Your task to perform on an android device: change alarm snooze length Image 0: 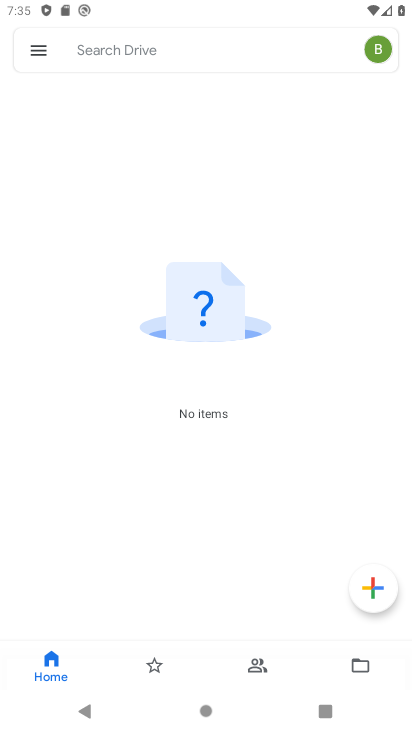
Step 0: press home button
Your task to perform on an android device: change alarm snooze length Image 1: 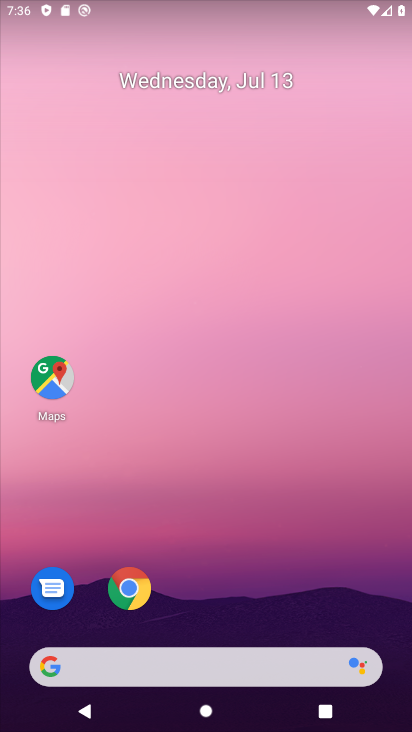
Step 1: drag from (245, 719) to (206, 16)
Your task to perform on an android device: change alarm snooze length Image 2: 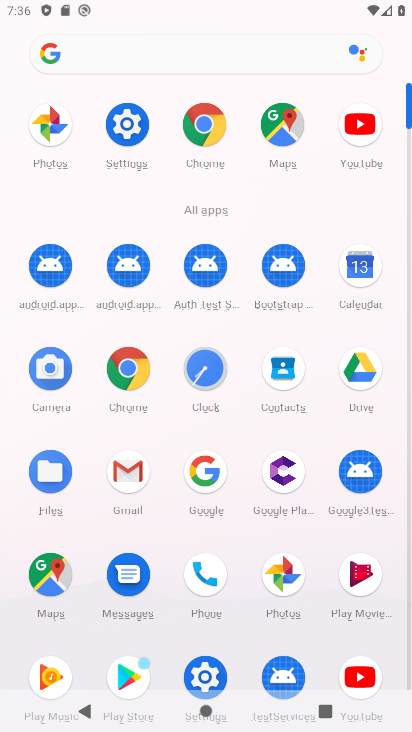
Step 2: click (208, 374)
Your task to perform on an android device: change alarm snooze length Image 3: 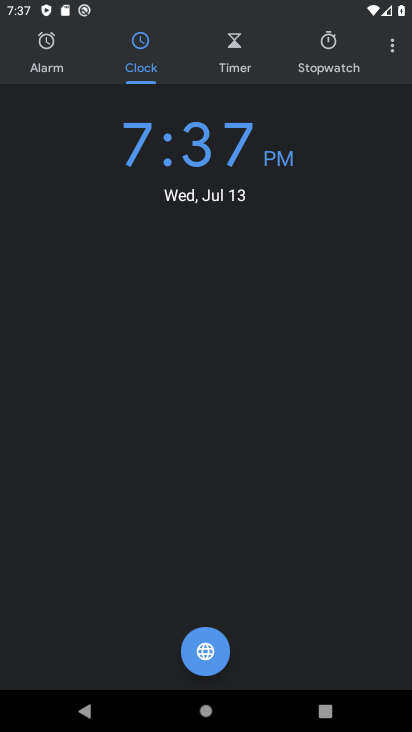
Step 3: click (393, 53)
Your task to perform on an android device: change alarm snooze length Image 4: 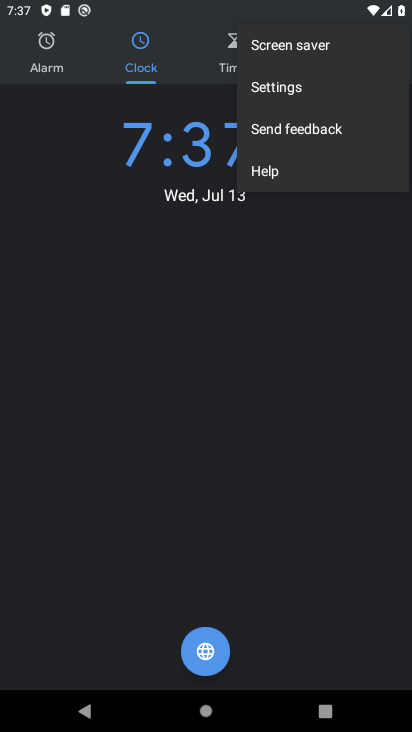
Step 4: click (286, 90)
Your task to perform on an android device: change alarm snooze length Image 5: 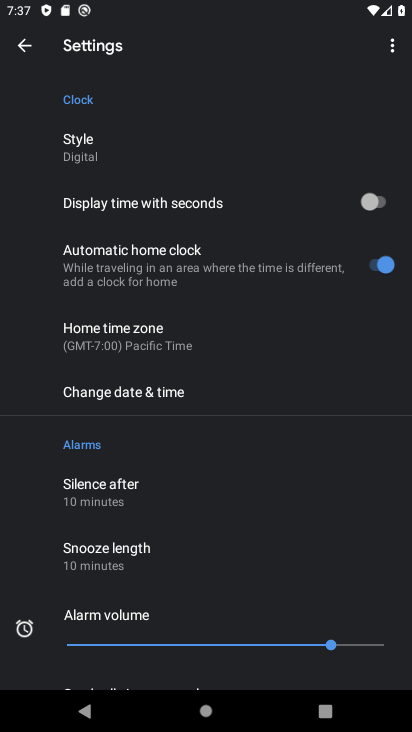
Step 5: click (125, 552)
Your task to perform on an android device: change alarm snooze length Image 6: 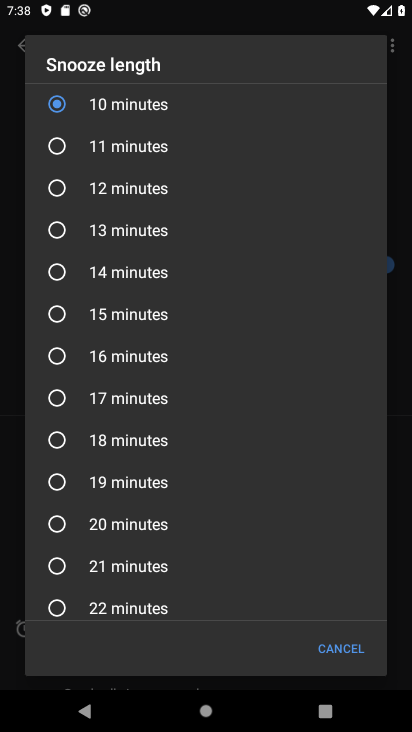
Step 6: click (114, 382)
Your task to perform on an android device: change alarm snooze length Image 7: 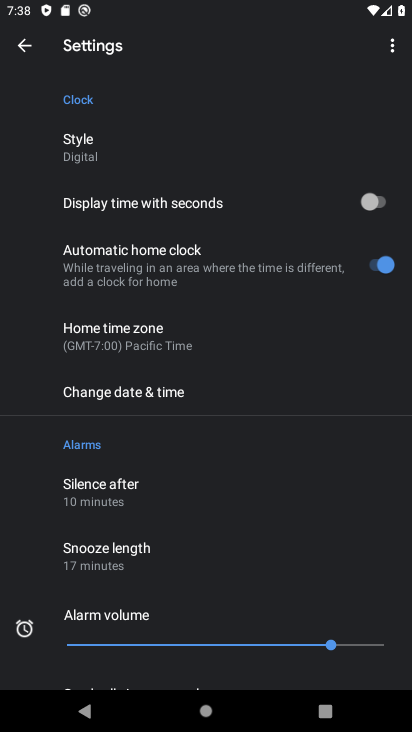
Step 7: task complete